Your task to perform on an android device: Open Android settings Image 0: 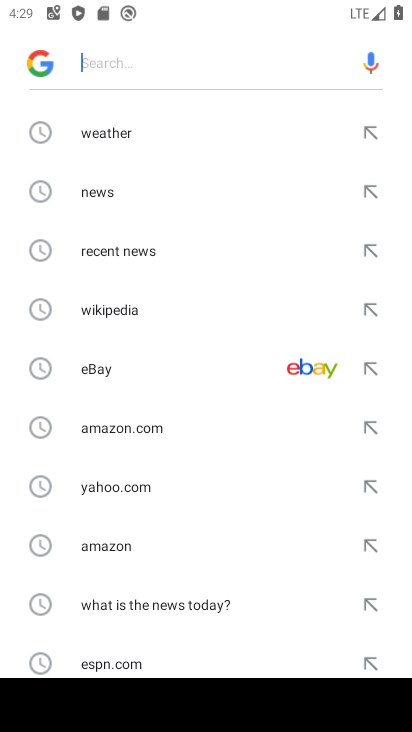
Step 0: press home button
Your task to perform on an android device: Open Android settings Image 1: 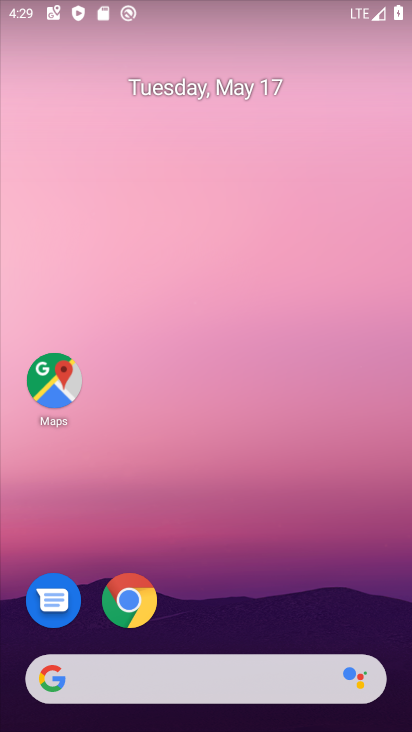
Step 1: drag from (383, 629) to (372, 147)
Your task to perform on an android device: Open Android settings Image 2: 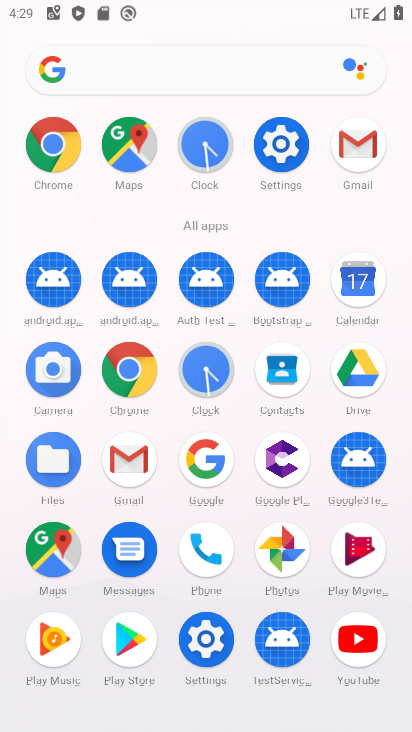
Step 2: click (200, 641)
Your task to perform on an android device: Open Android settings Image 3: 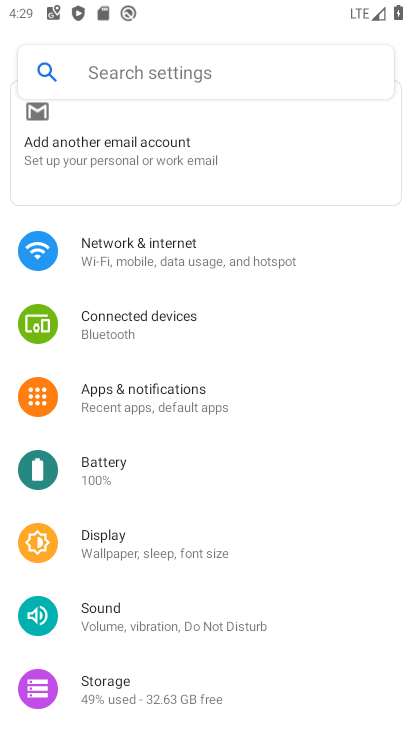
Step 3: drag from (308, 677) to (308, 97)
Your task to perform on an android device: Open Android settings Image 4: 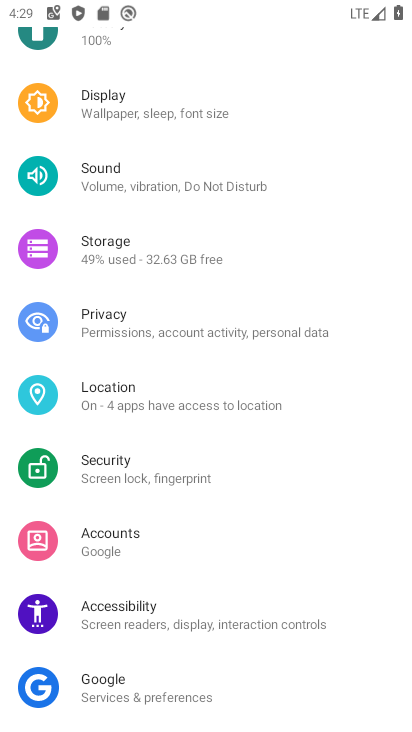
Step 4: drag from (303, 633) to (327, 100)
Your task to perform on an android device: Open Android settings Image 5: 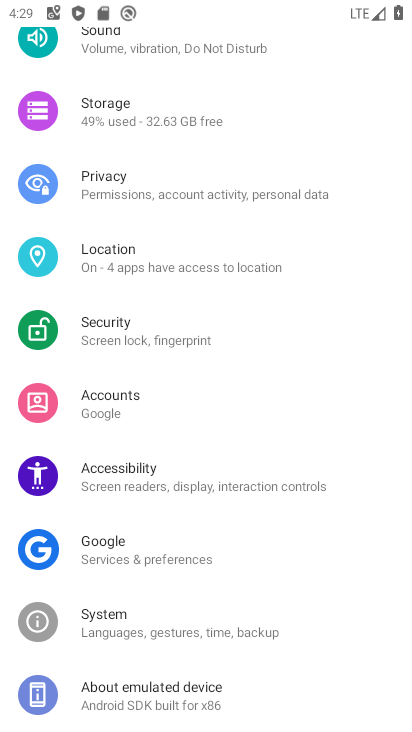
Step 5: click (142, 689)
Your task to perform on an android device: Open Android settings Image 6: 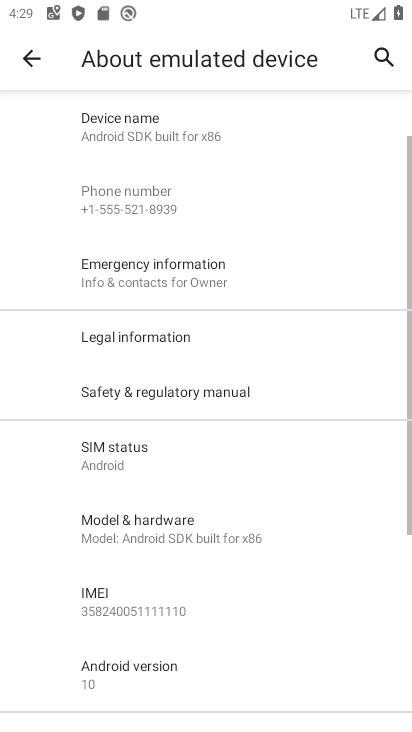
Step 6: task complete